Your task to perform on an android device: turn off location Image 0: 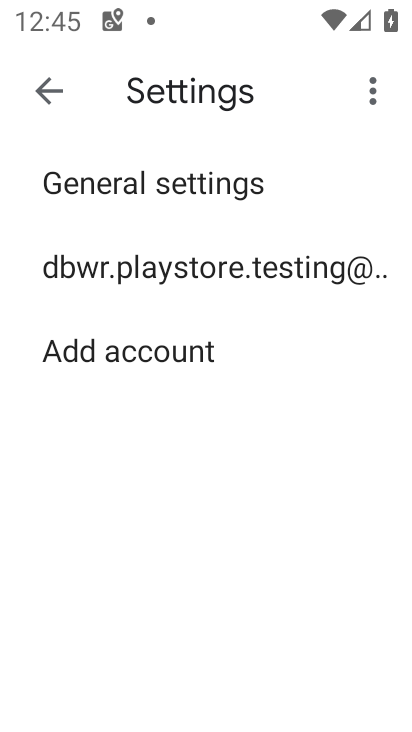
Step 0: press home button
Your task to perform on an android device: turn off location Image 1: 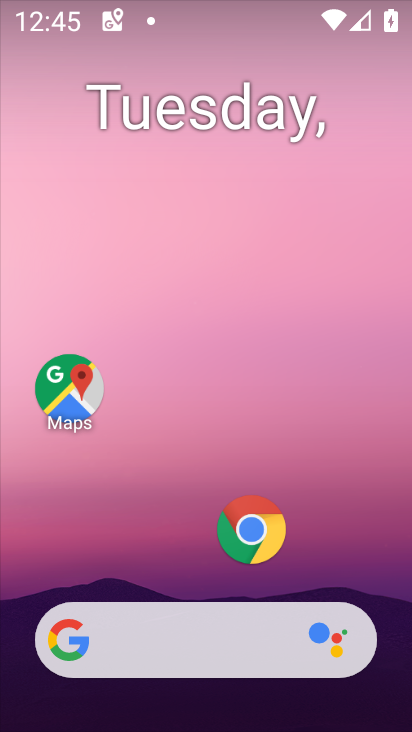
Step 1: drag from (255, 451) to (342, 1)
Your task to perform on an android device: turn off location Image 2: 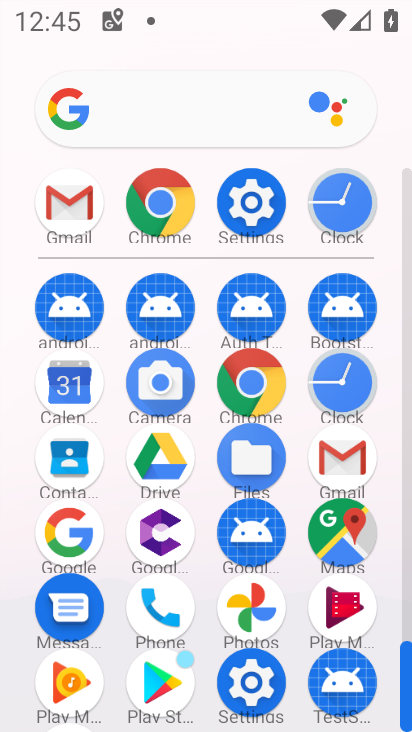
Step 2: click (251, 205)
Your task to perform on an android device: turn off location Image 3: 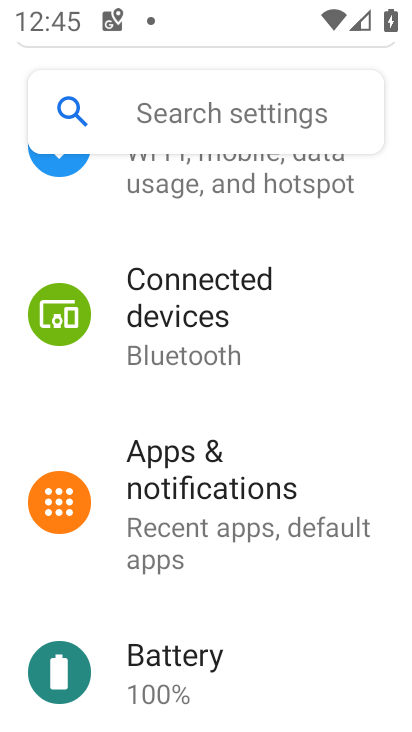
Step 3: click (228, 101)
Your task to perform on an android device: turn off location Image 4: 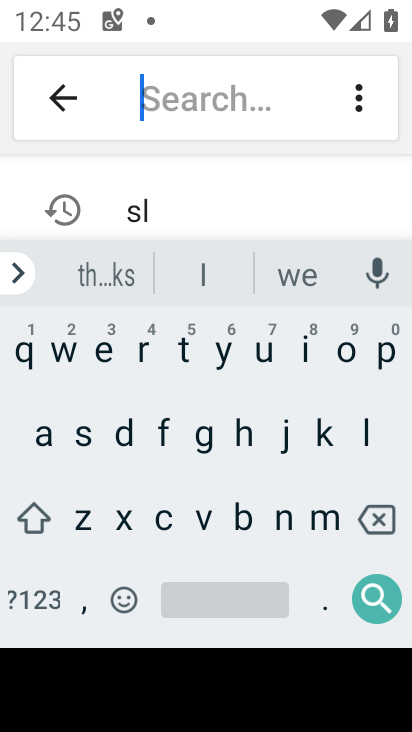
Step 4: click (375, 422)
Your task to perform on an android device: turn off location Image 5: 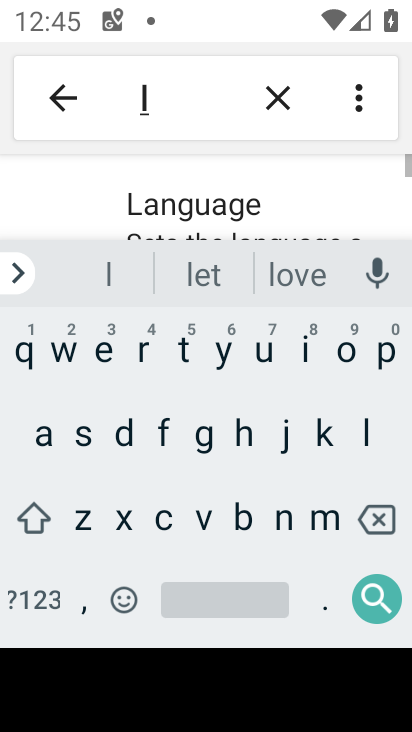
Step 5: click (342, 349)
Your task to perform on an android device: turn off location Image 6: 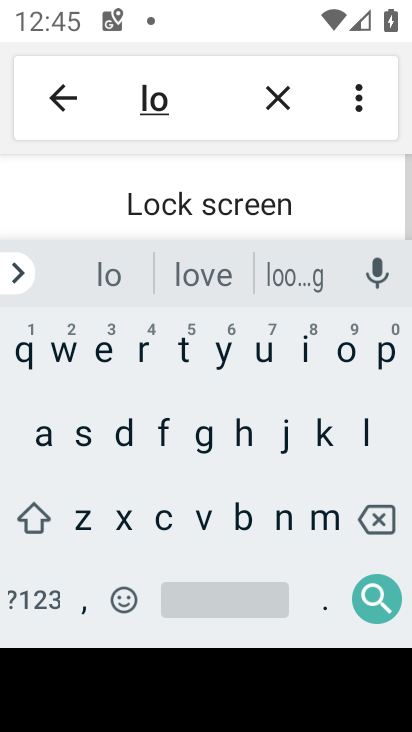
Step 6: press back button
Your task to perform on an android device: turn off location Image 7: 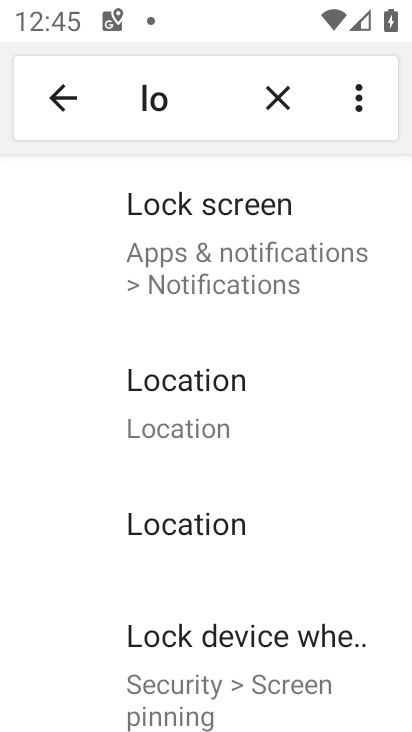
Step 7: click (168, 396)
Your task to perform on an android device: turn off location Image 8: 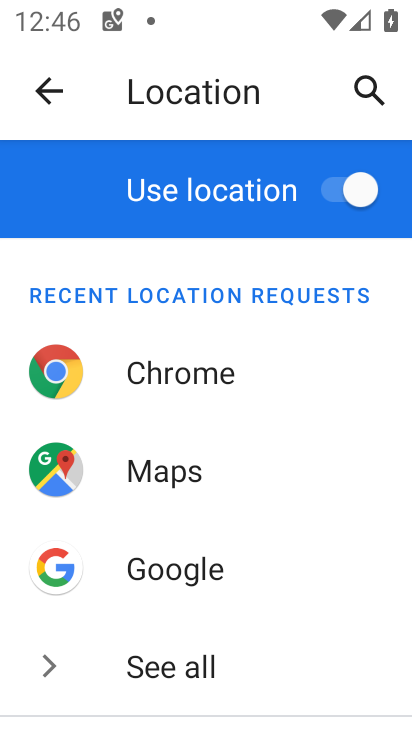
Step 8: click (360, 172)
Your task to perform on an android device: turn off location Image 9: 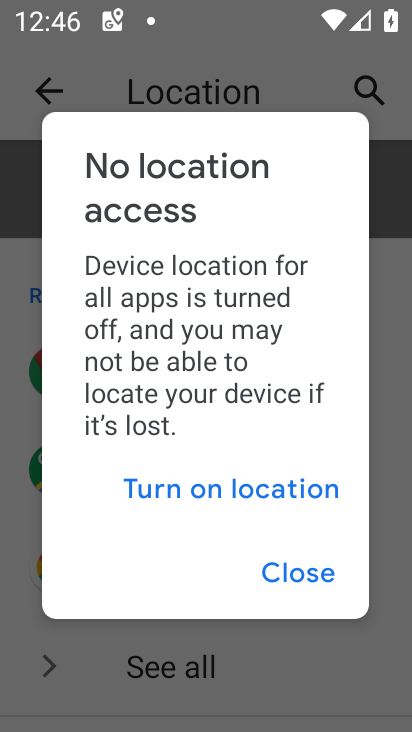
Step 9: task complete